Your task to perform on an android device: Open Yahoo.com Image 0: 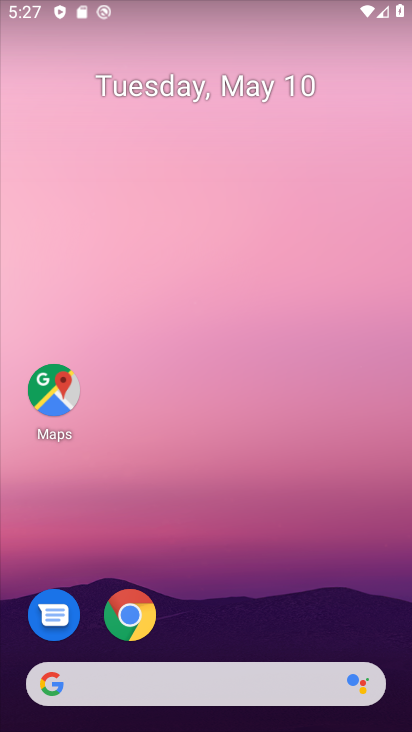
Step 0: click (149, 617)
Your task to perform on an android device: Open Yahoo.com Image 1: 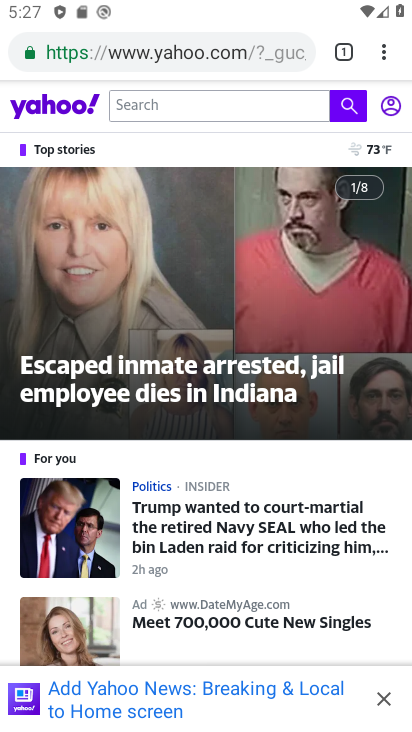
Step 1: task complete